Your task to perform on an android device: install app "Google Play Games" Image 0: 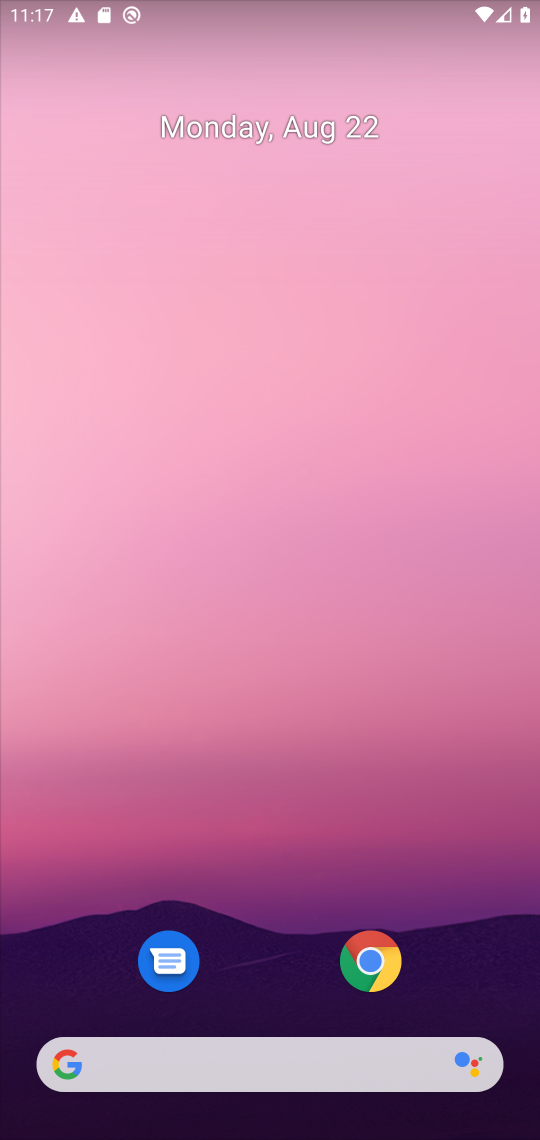
Step 0: drag from (304, 1029) to (287, 110)
Your task to perform on an android device: install app "Google Play Games" Image 1: 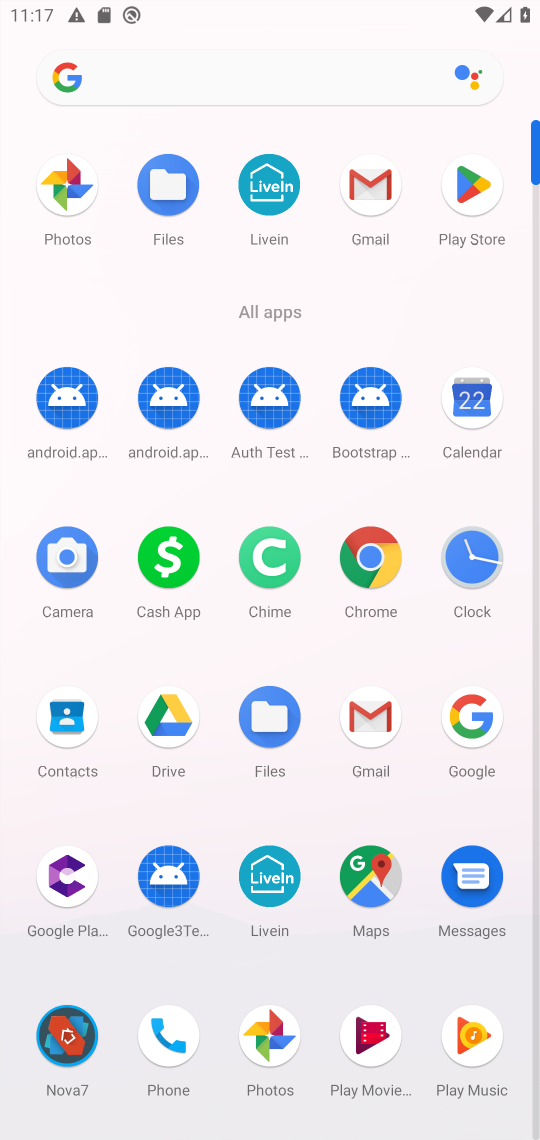
Step 1: click (461, 188)
Your task to perform on an android device: install app "Google Play Games" Image 2: 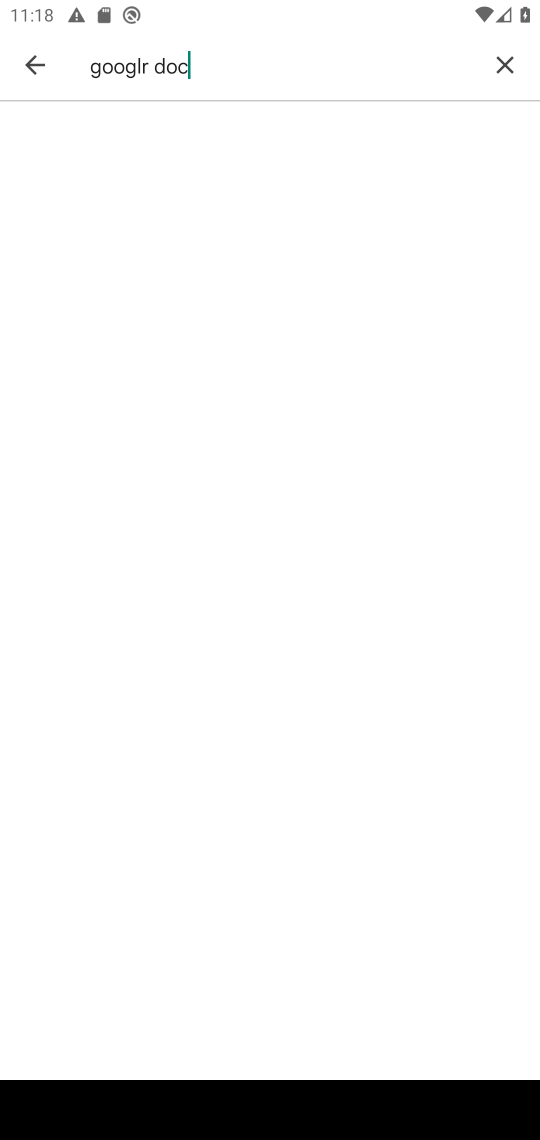
Step 2: click (483, 67)
Your task to perform on an android device: install app "Google Play Games" Image 3: 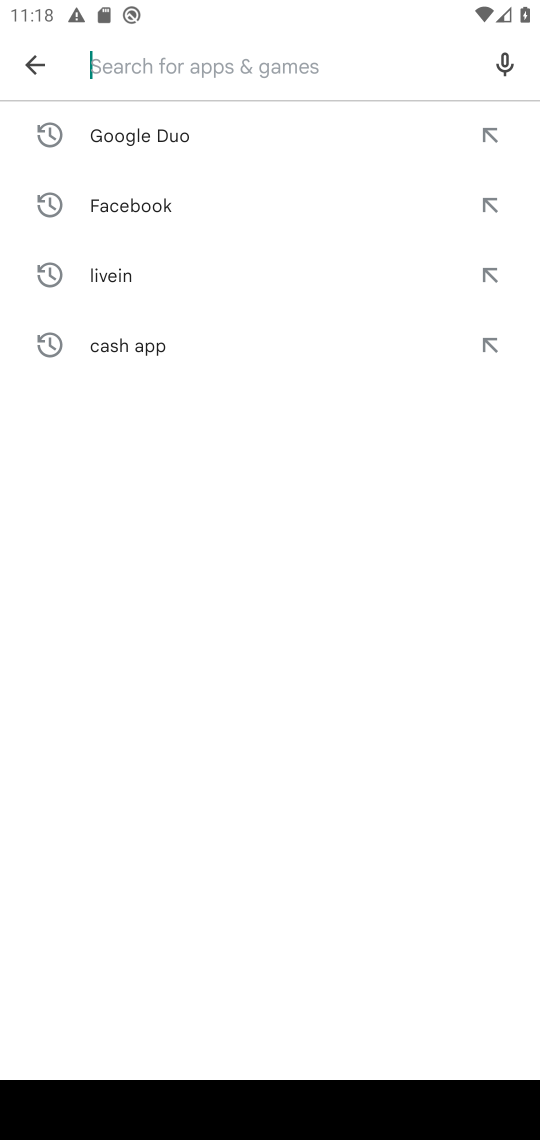
Step 3: type "google pl"
Your task to perform on an android device: install app "Google Play Games" Image 4: 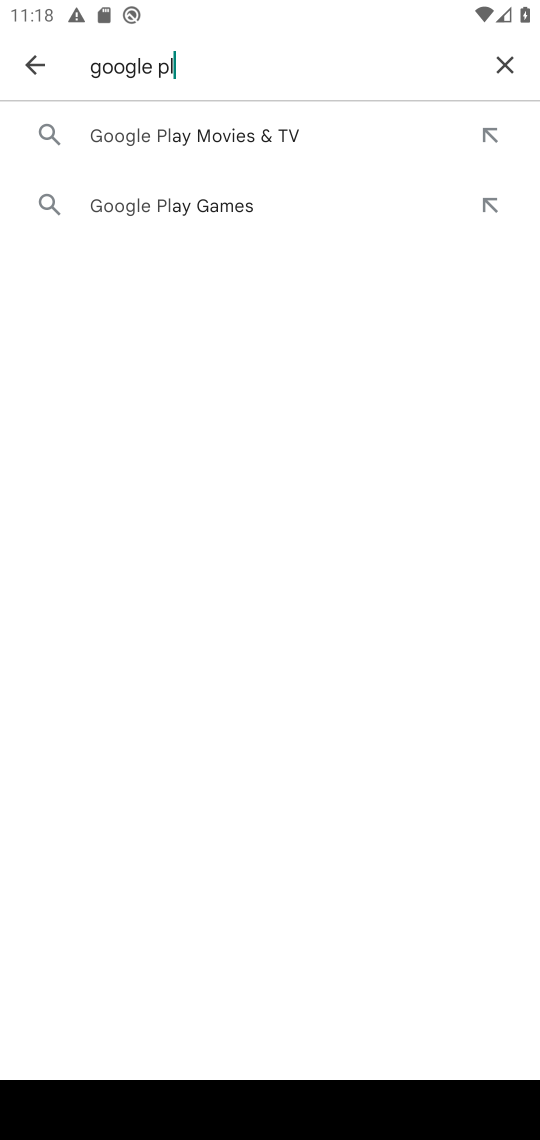
Step 4: click (248, 214)
Your task to perform on an android device: install app "Google Play Games" Image 5: 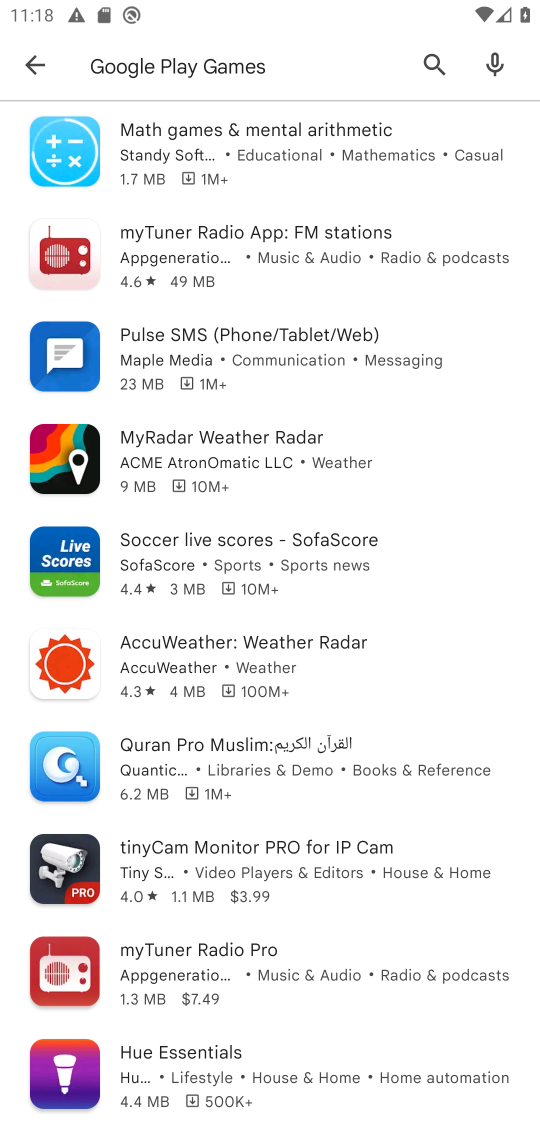
Step 5: task complete